Your task to perform on an android device: What is the recent news? Image 0: 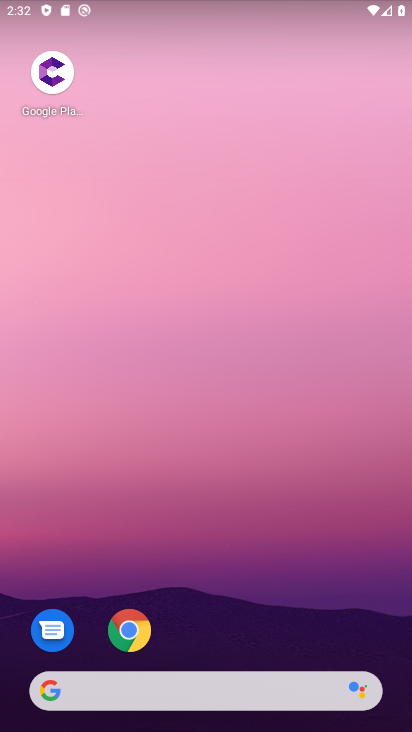
Step 0: click (240, 687)
Your task to perform on an android device: What is the recent news? Image 1: 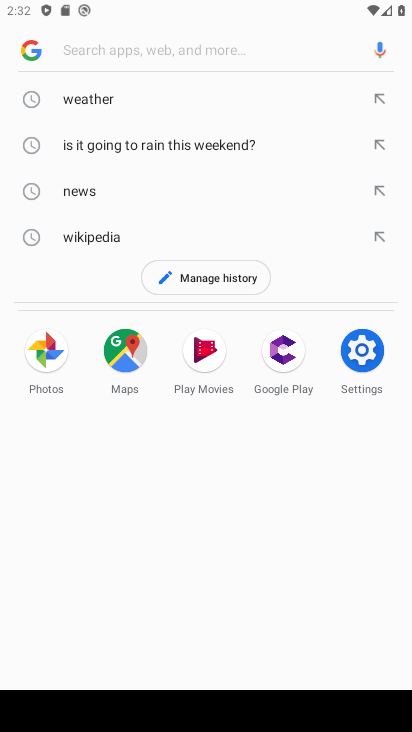
Step 1: click (86, 191)
Your task to perform on an android device: What is the recent news? Image 2: 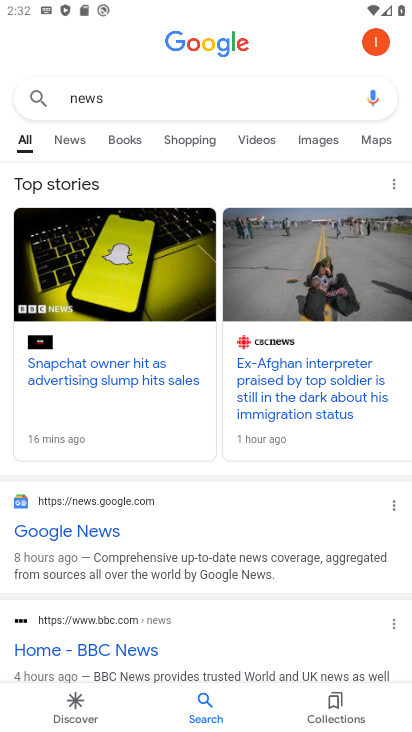
Step 2: task complete